Your task to perform on an android device: Search for the best selling TV on Best Buy. Image 0: 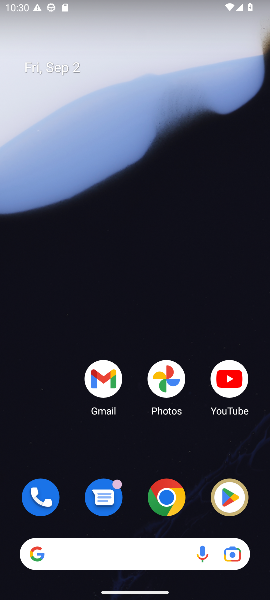
Step 0: click (172, 494)
Your task to perform on an android device: Search for the best selling TV on Best Buy. Image 1: 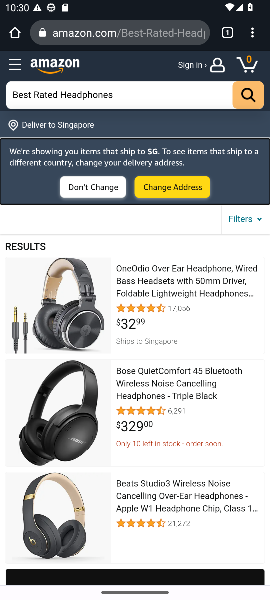
Step 1: click (105, 36)
Your task to perform on an android device: Search for the best selling TV on Best Buy. Image 2: 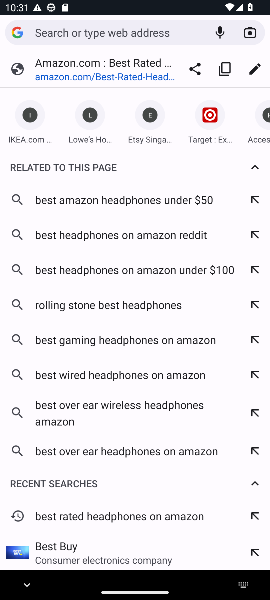
Step 2: type "best selling TV on Best Buy"
Your task to perform on an android device: Search for the best selling TV on Best Buy. Image 3: 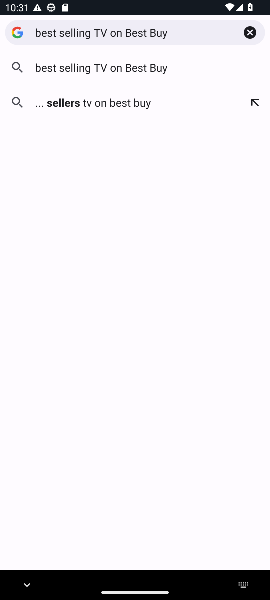
Step 3: press enter
Your task to perform on an android device: Search for the best selling TV on Best Buy. Image 4: 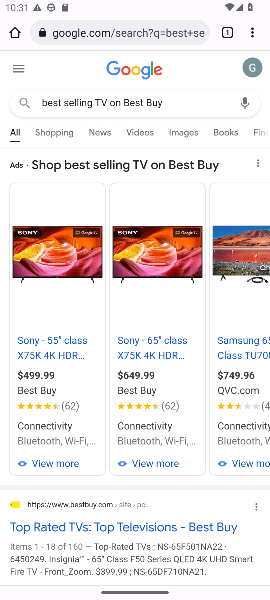
Step 4: click (112, 528)
Your task to perform on an android device: Search for the best selling TV on Best Buy. Image 5: 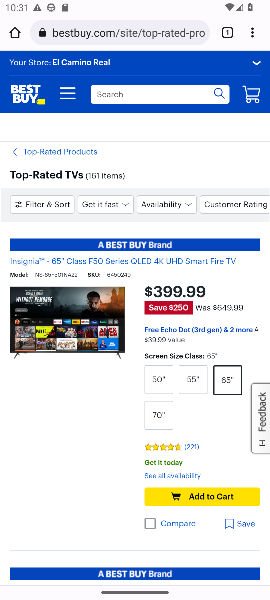
Step 5: task complete